Your task to perform on an android device: What's US dollar exchange rateagainst the Mexican Peso? Image 0: 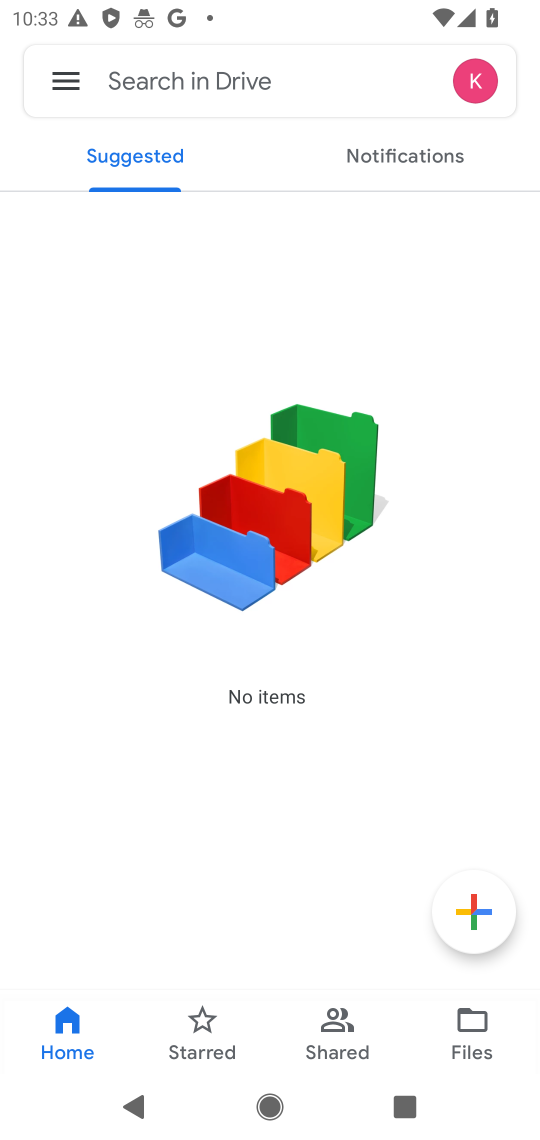
Step 0: press home button
Your task to perform on an android device: What's US dollar exchange rateagainst the Mexican Peso? Image 1: 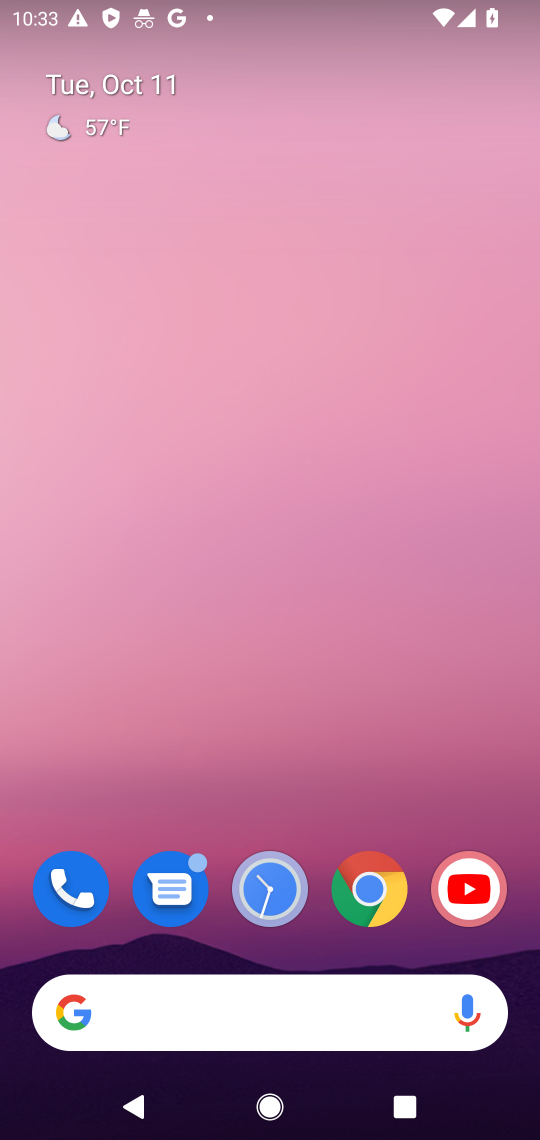
Step 1: click (212, 1022)
Your task to perform on an android device: What's US dollar exchange rateagainst the Mexican Peso? Image 2: 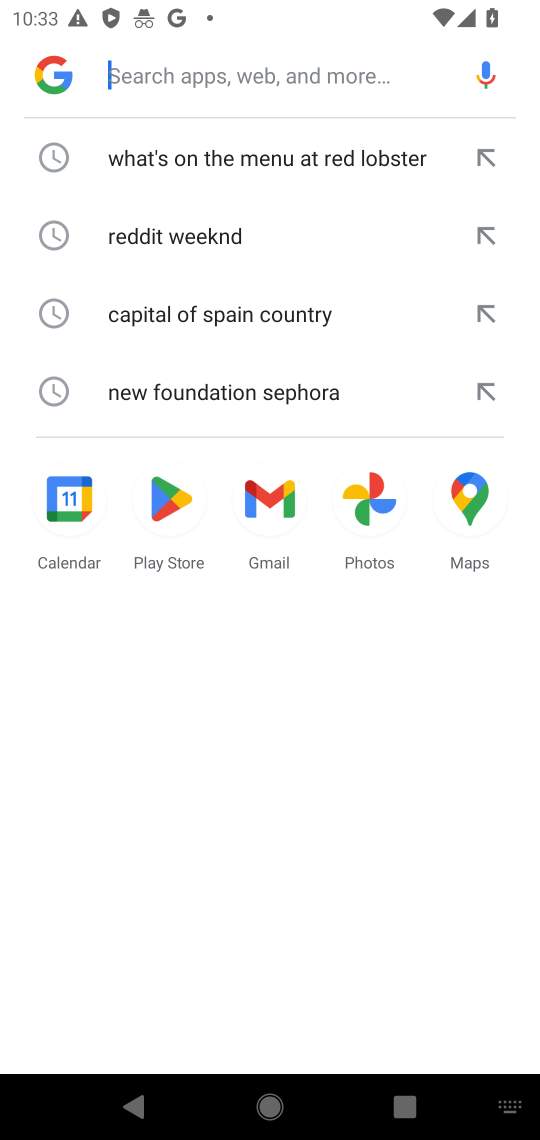
Step 2: click (129, 52)
Your task to perform on an android device: What's US dollar exchange rateagainst the Mexican Peso? Image 3: 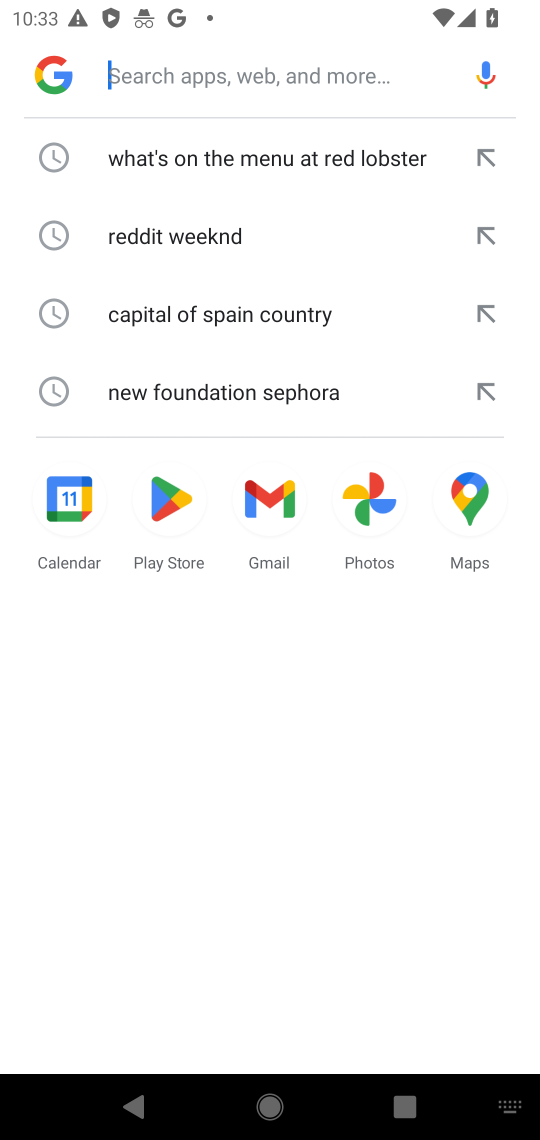
Step 3: type "What's US dollar exchange rateagainst the Mexican Peso?"
Your task to perform on an android device: What's US dollar exchange rateagainst the Mexican Peso? Image 4: 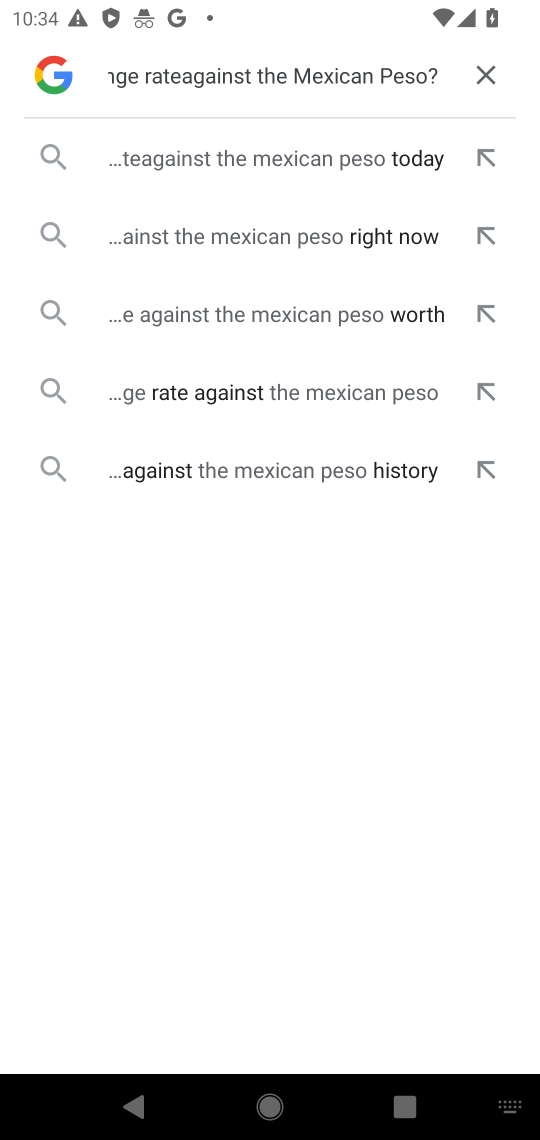
Step 4: click (276, 168)
Your task to perform on an android device: What's US dollar exchange rateagainst the Mexican Peso? Image 5: 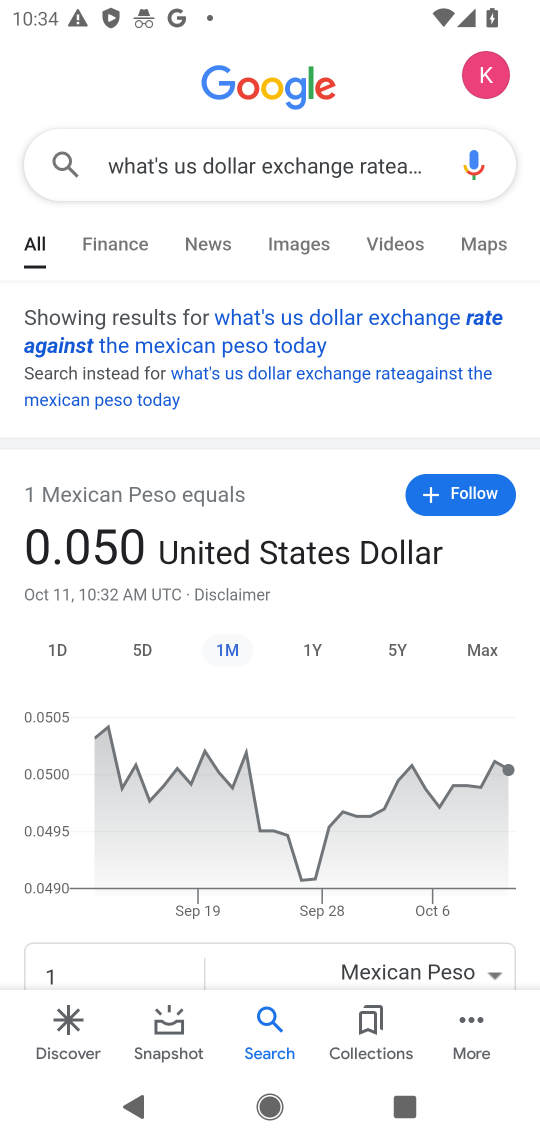
Step 5: task complete